Your task to perform on an android device: search for starred emails in the gmail app Image 0: 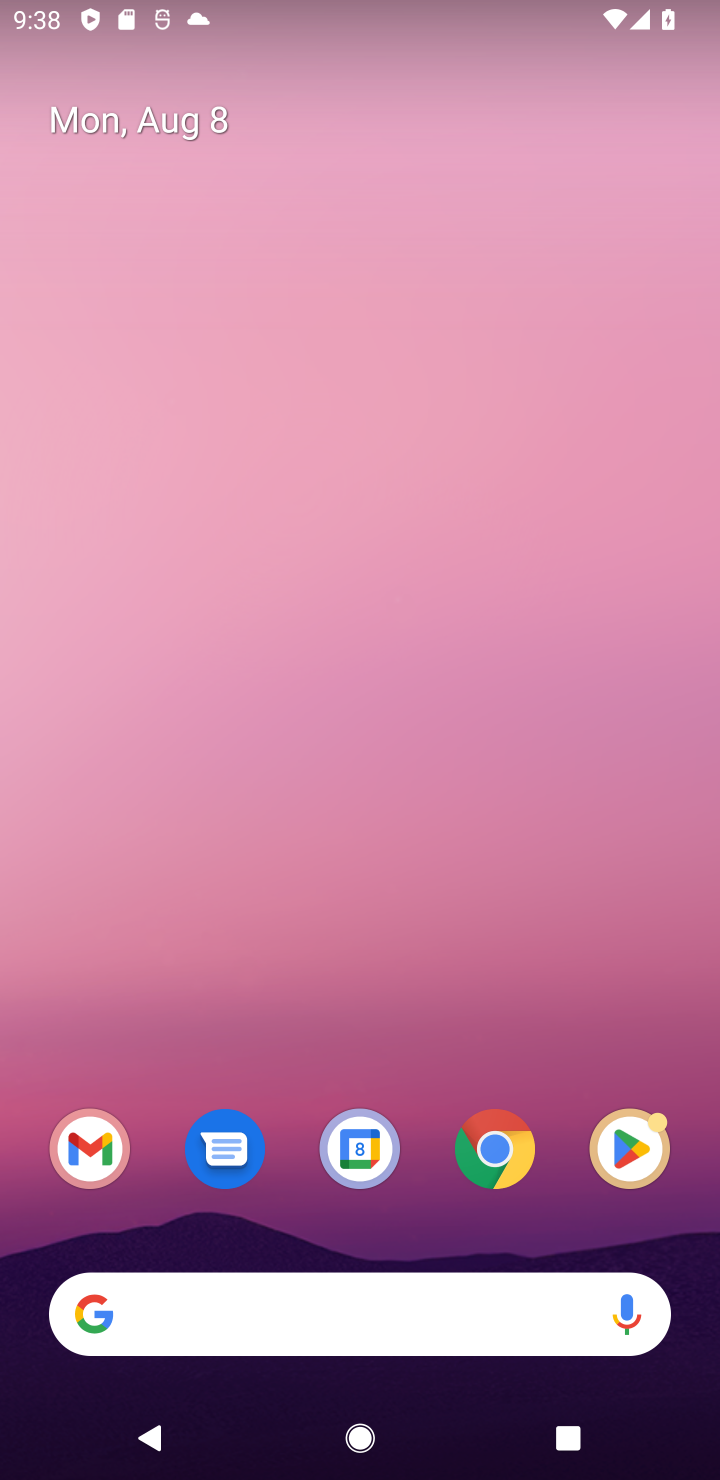
Step 0: drag from (337, 1331) to (141, 419)
Your task to perform on an android device: search for starred emails in the gmail app Image 1: 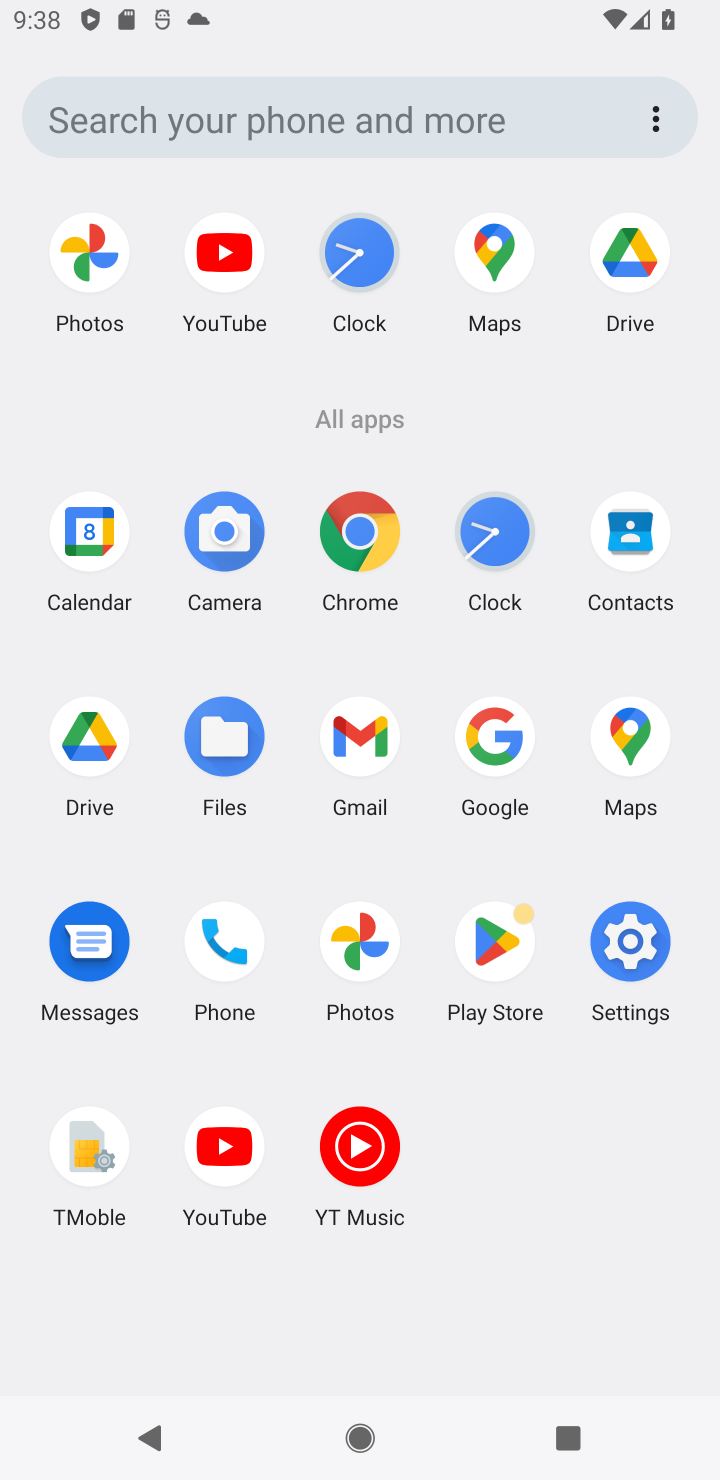
Step 1: click (362, 770)
Your task to perform on an android device: search for starred emails in the gmail app Image 2: 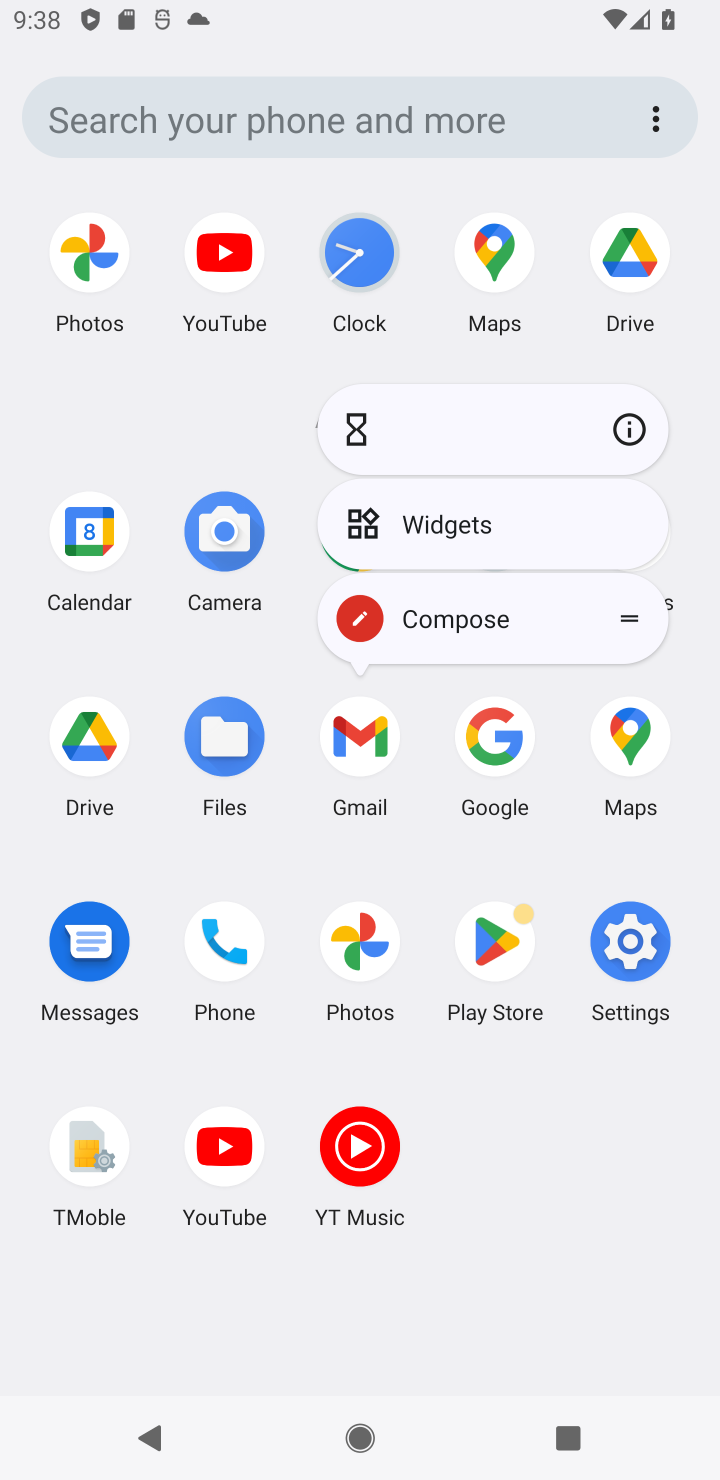
Step 2: click (360, 739)
Your task to perform on an android device: search for starred emails in the gmail app Image 3: 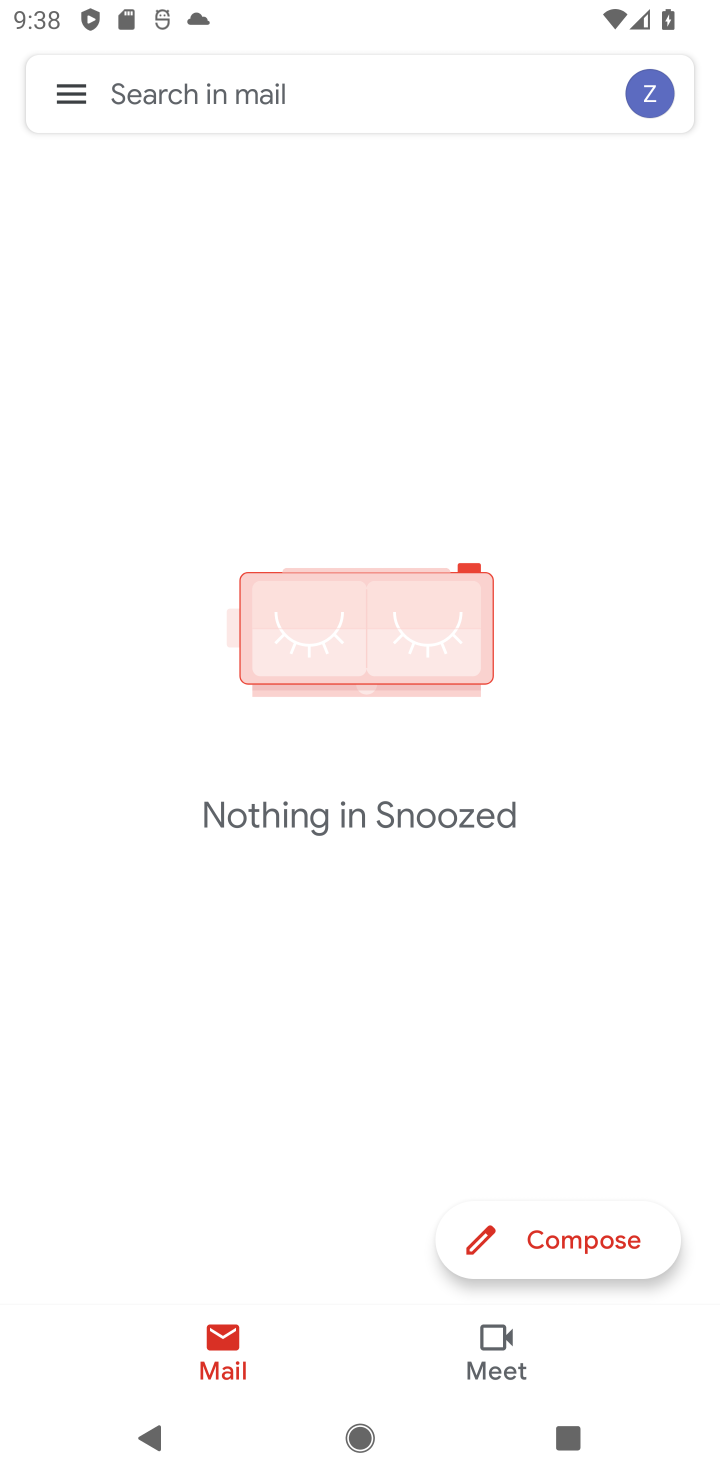
Step 3: click (63, 105)
Your task to perform on an android device: search for starred emails in the gmail app Image 4: 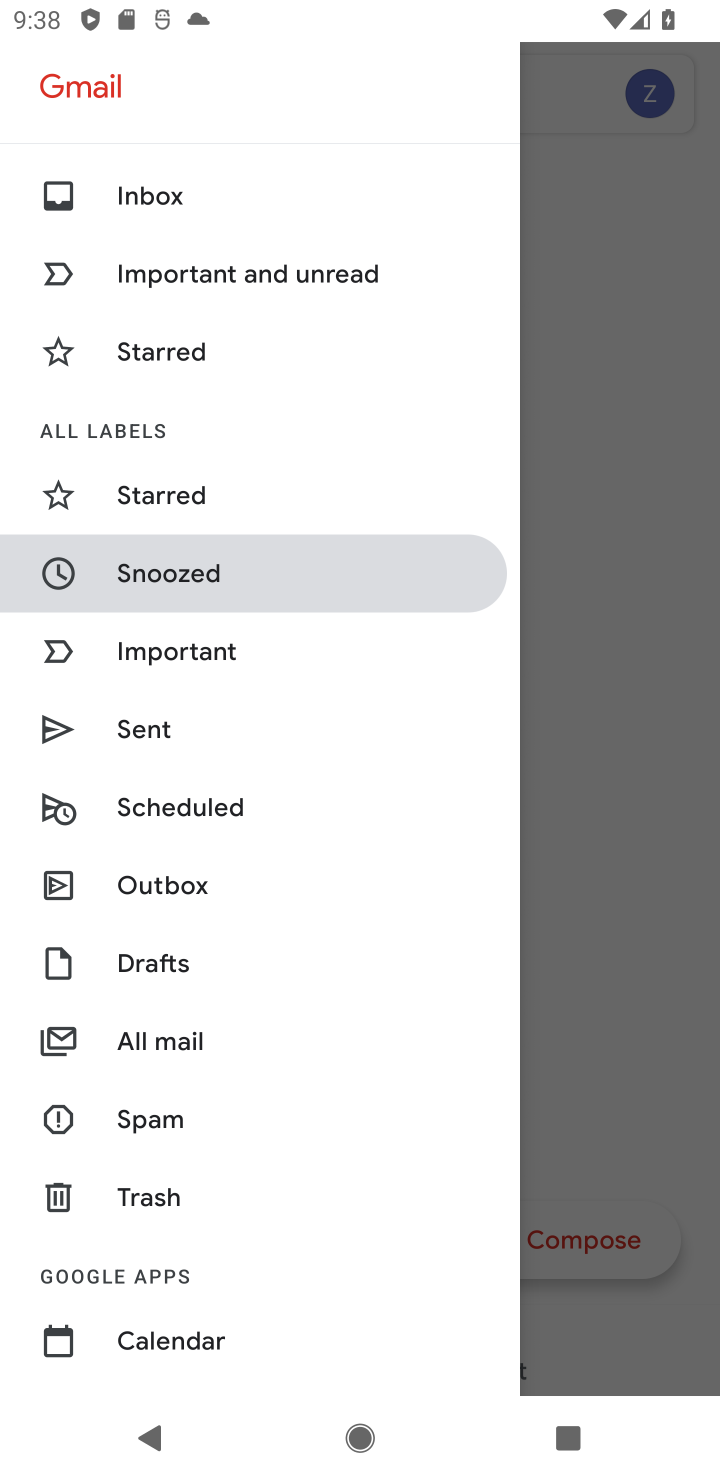
Step 4: click (200, 337)
Your task to perform on an android device: search for starred emails in the gmail app Image 5: 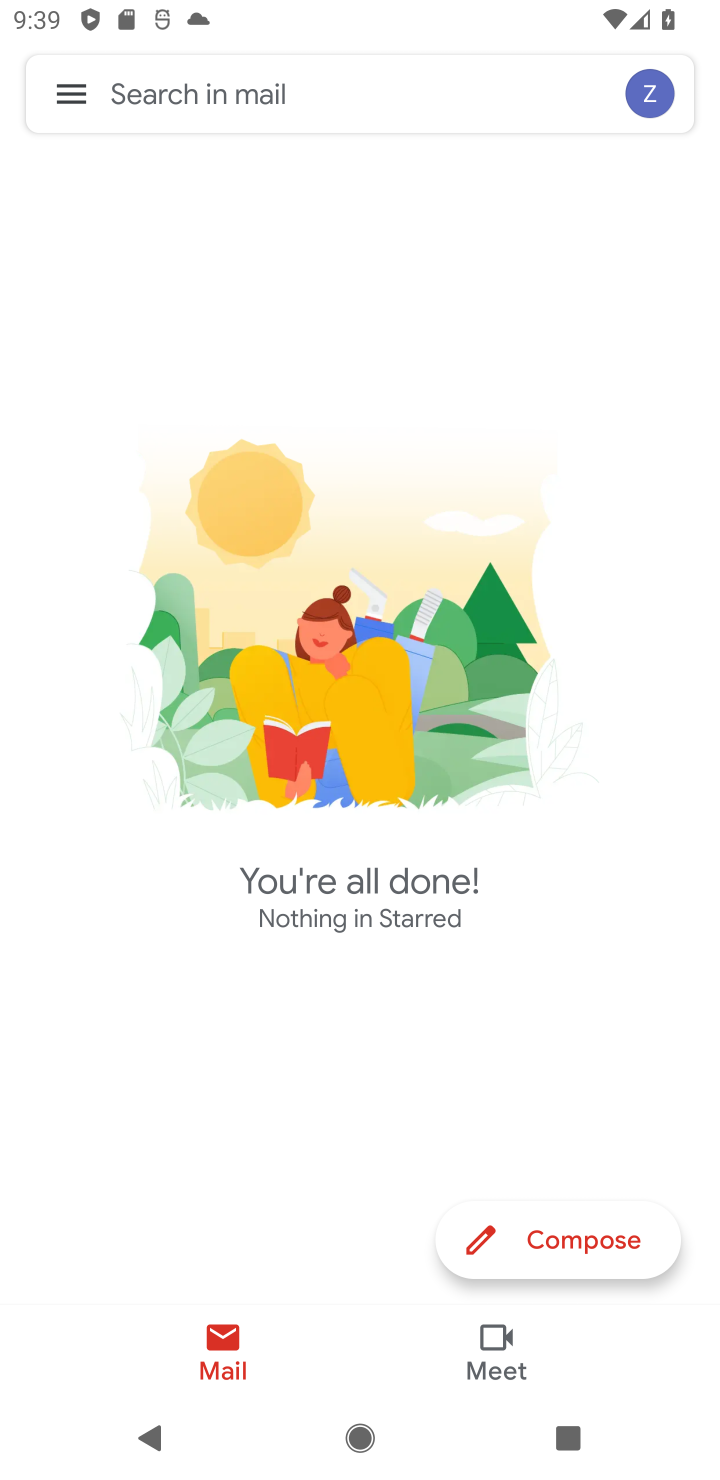
Step 5: press home button
Your task to perform on an android device: search for starred emails in the gmail app Image 6: 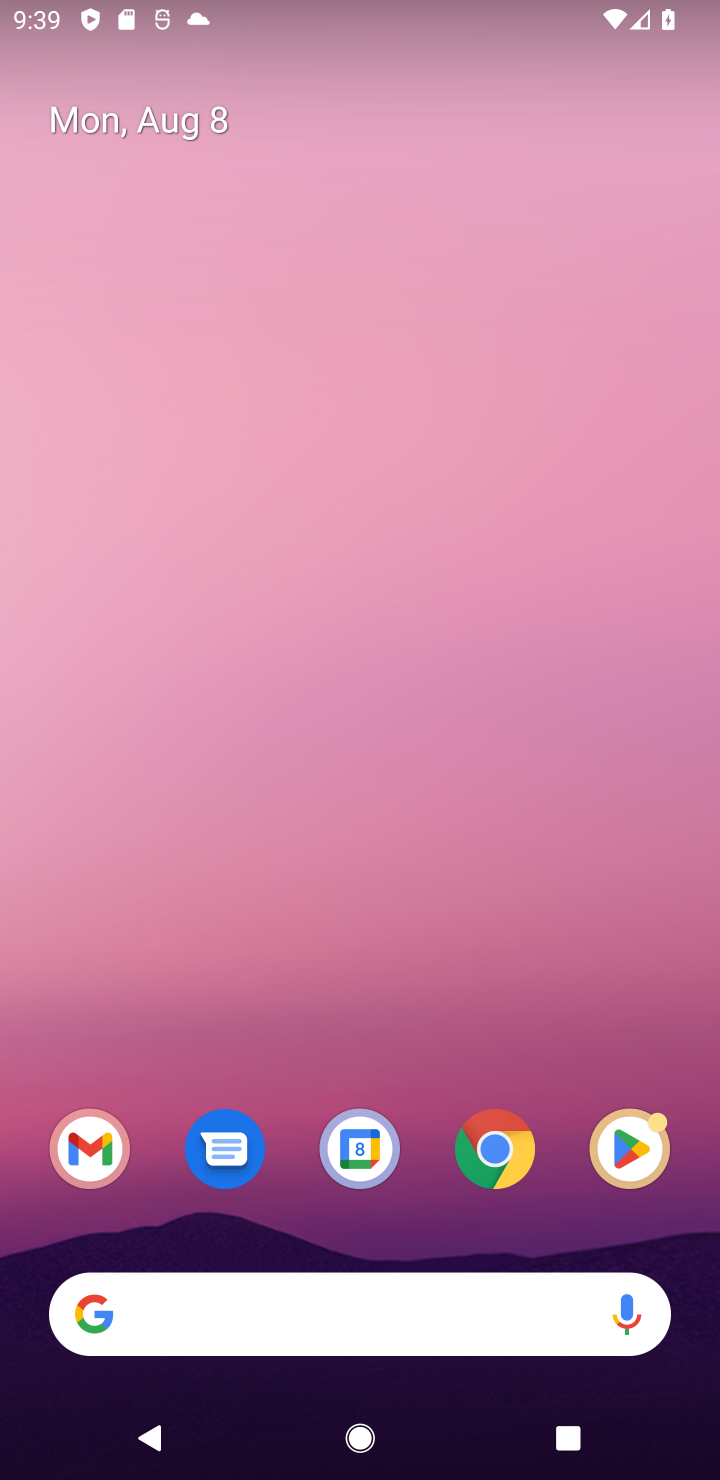
Step 6: drag from (281, 1313) to (166, 433)
Your task to perform on an android device: search for starred emails in the gmail app Image 7: 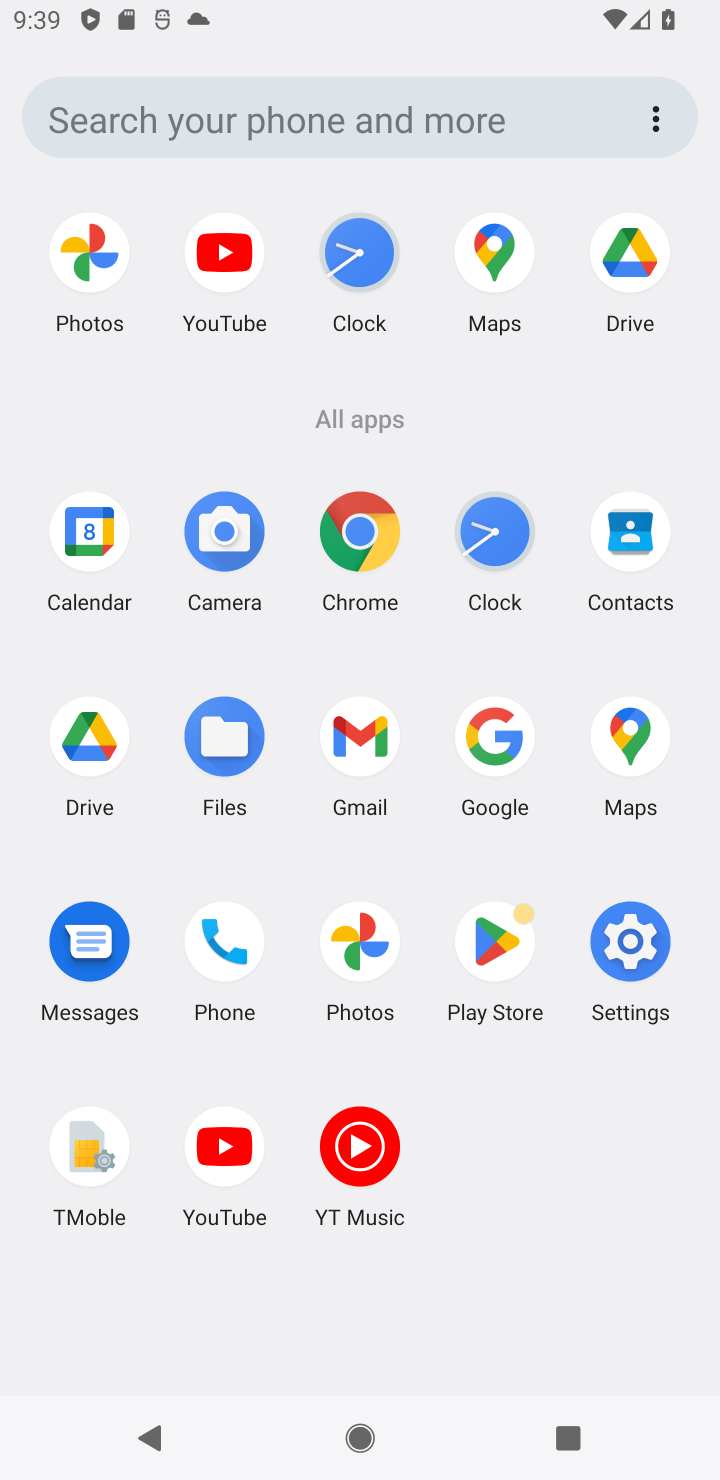
Step 7: click (341, 747)
Your task to perform on an android device: search for starred emails in the gmail app Image 8: 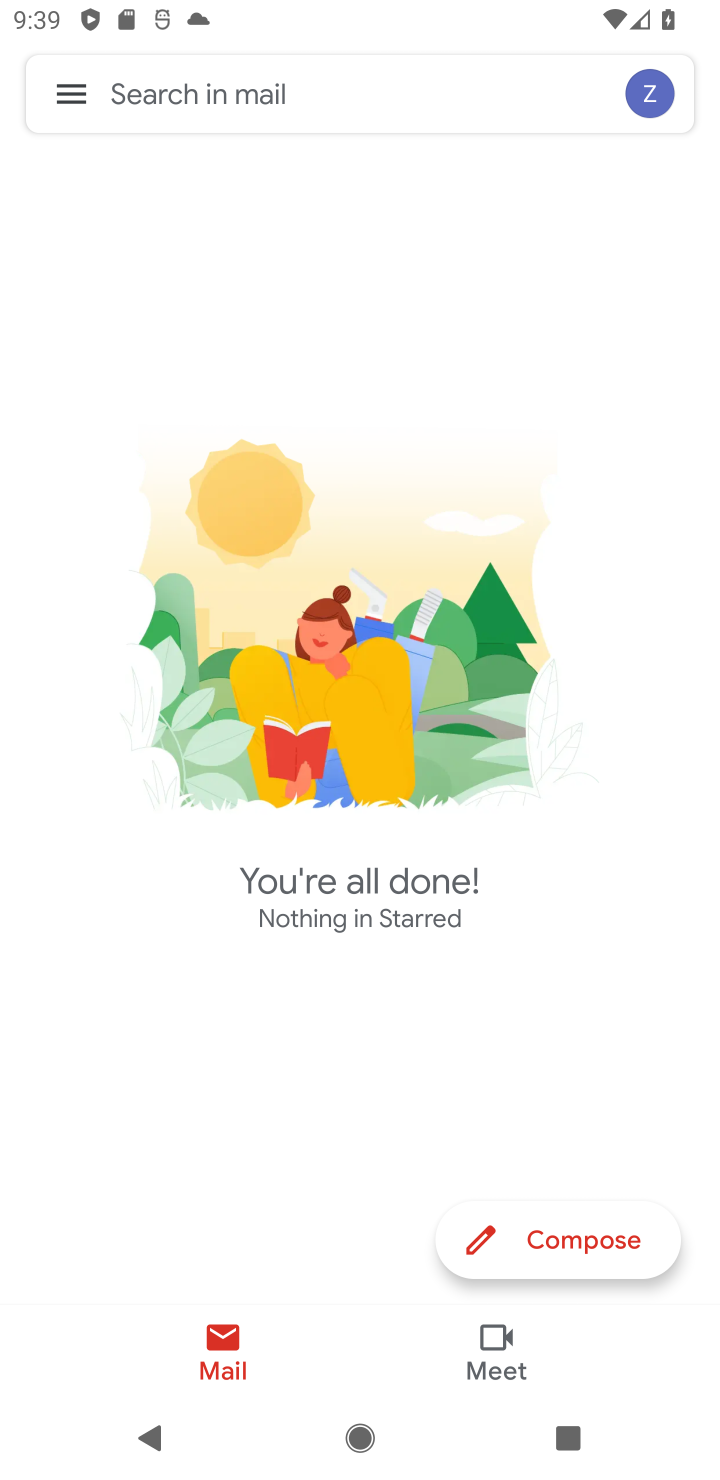
Step 8: click (60, 93)
Your task to perform on an android device: search for starred emails in the gmail app Image 9: 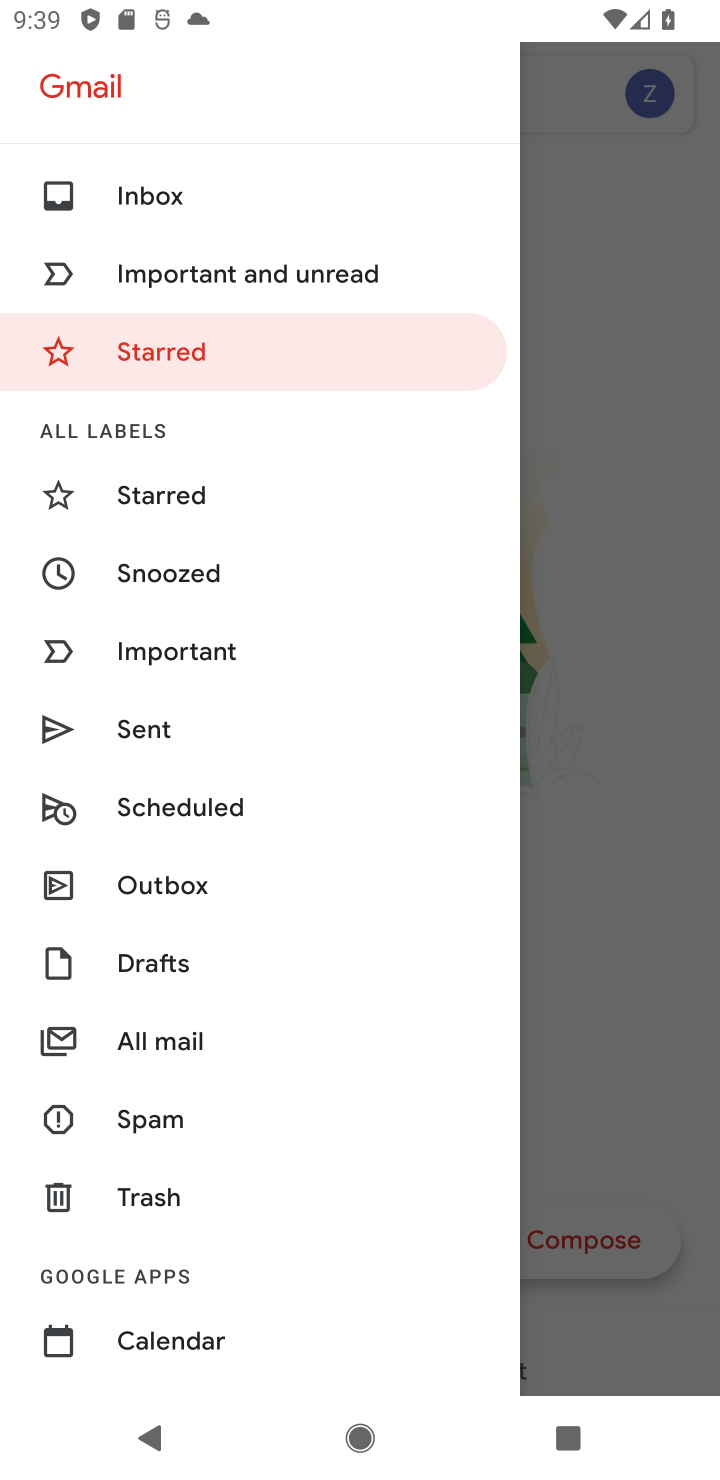
Step 9: click (159, 504)
Your task to perform on an android device: search for starred emails in the gmail app Image 10: 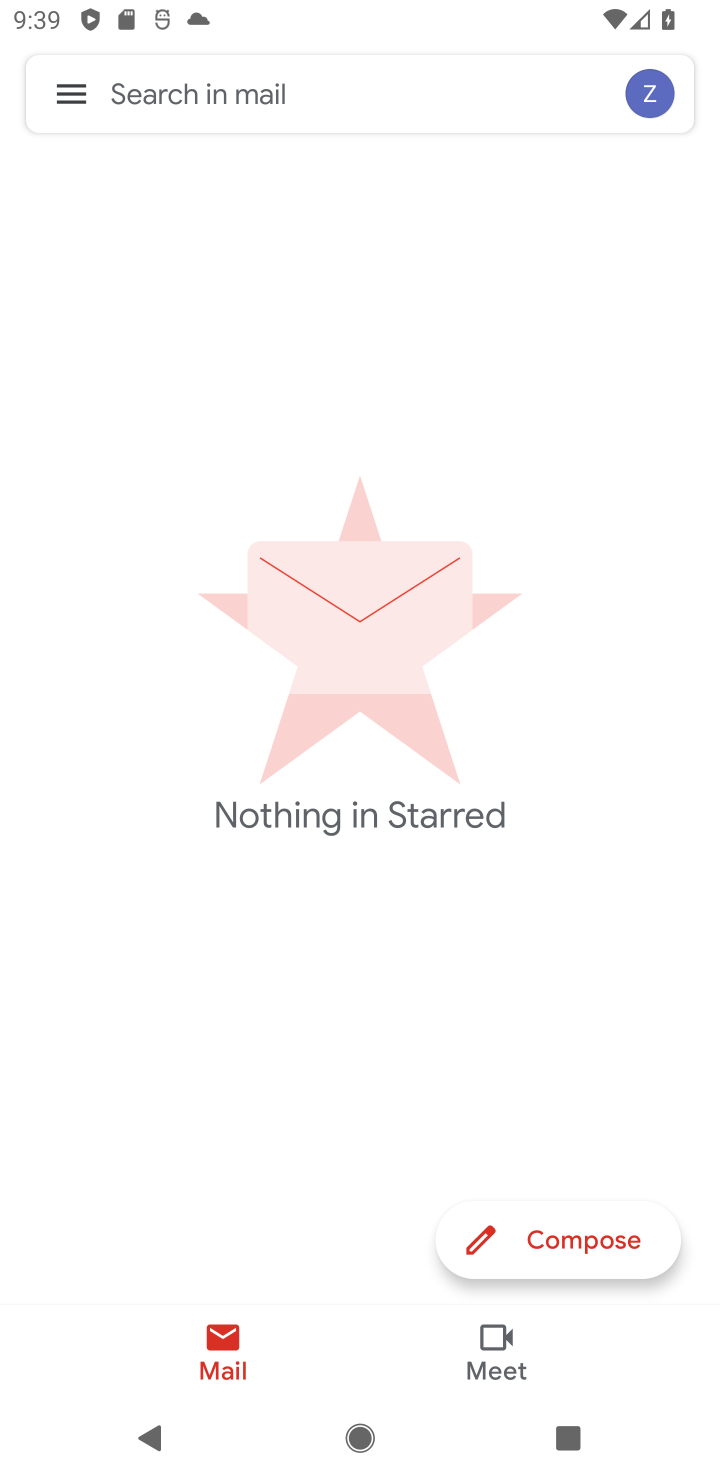
Step 10: task complete